Your task to perform on an android device: open app "Google Translate" (install if not already installed) Image 0: 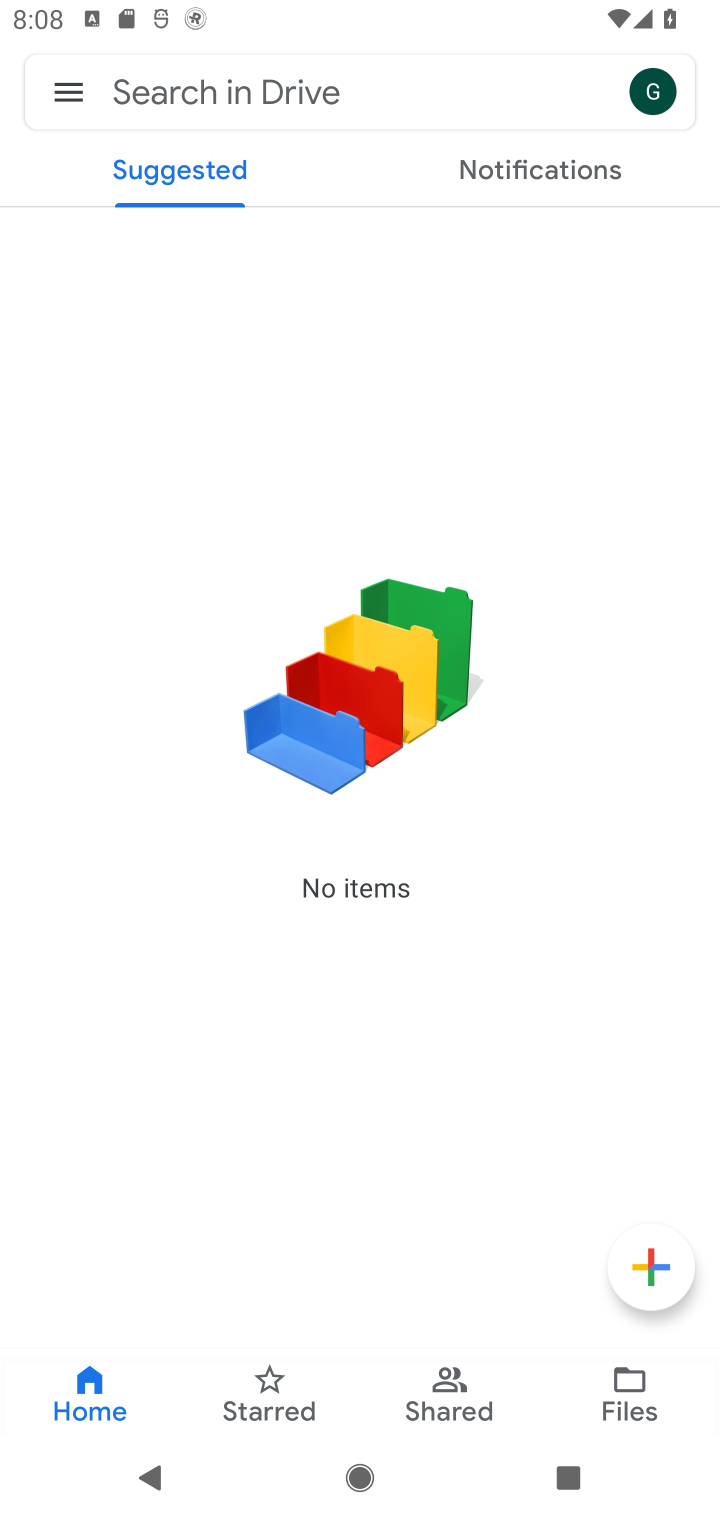
Step 0: press home button
Your task to perform on an android device: open app "Google Translate" (install if not already installed) Image 1: 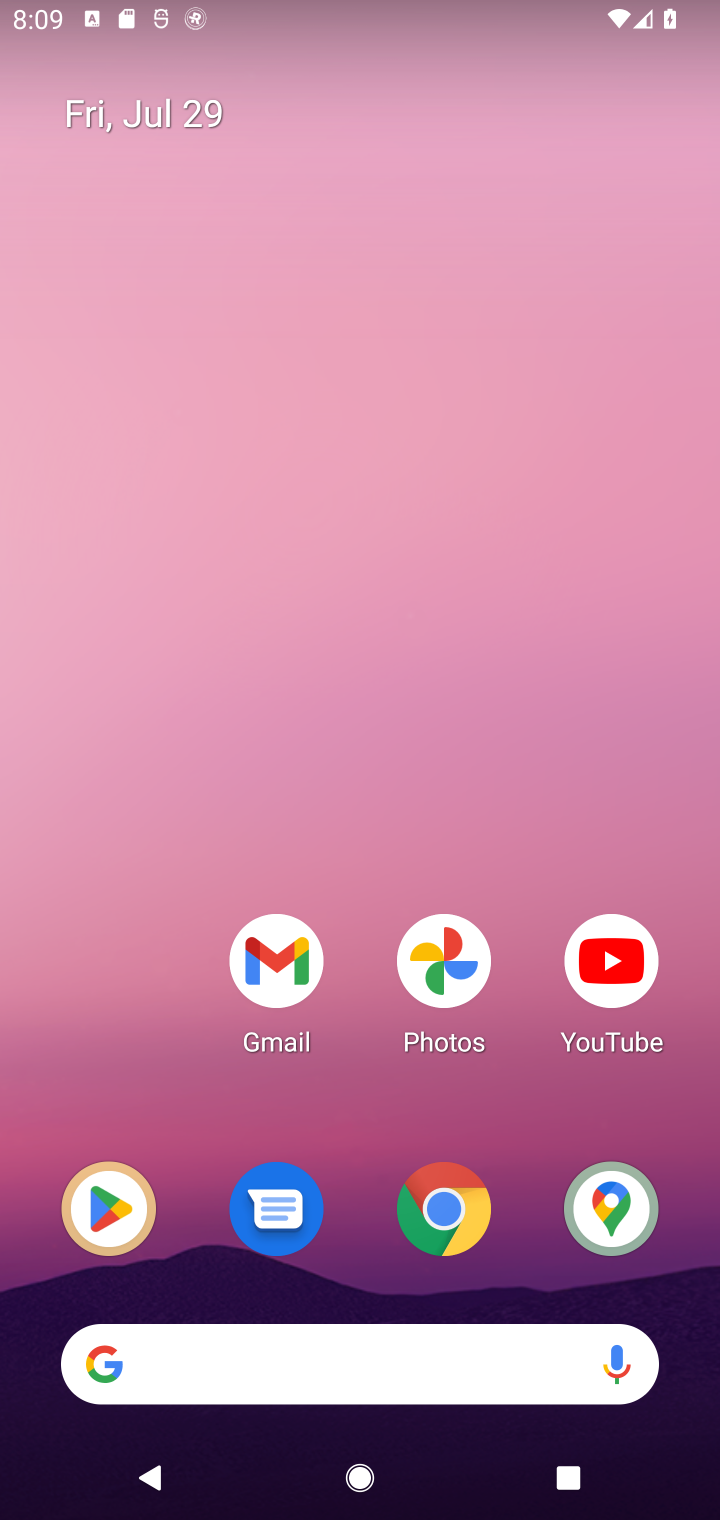
Step 1: click (117, 1218)
Your task to perform on an android device: open app "Google Translate" (install if not already installed) Image 2: 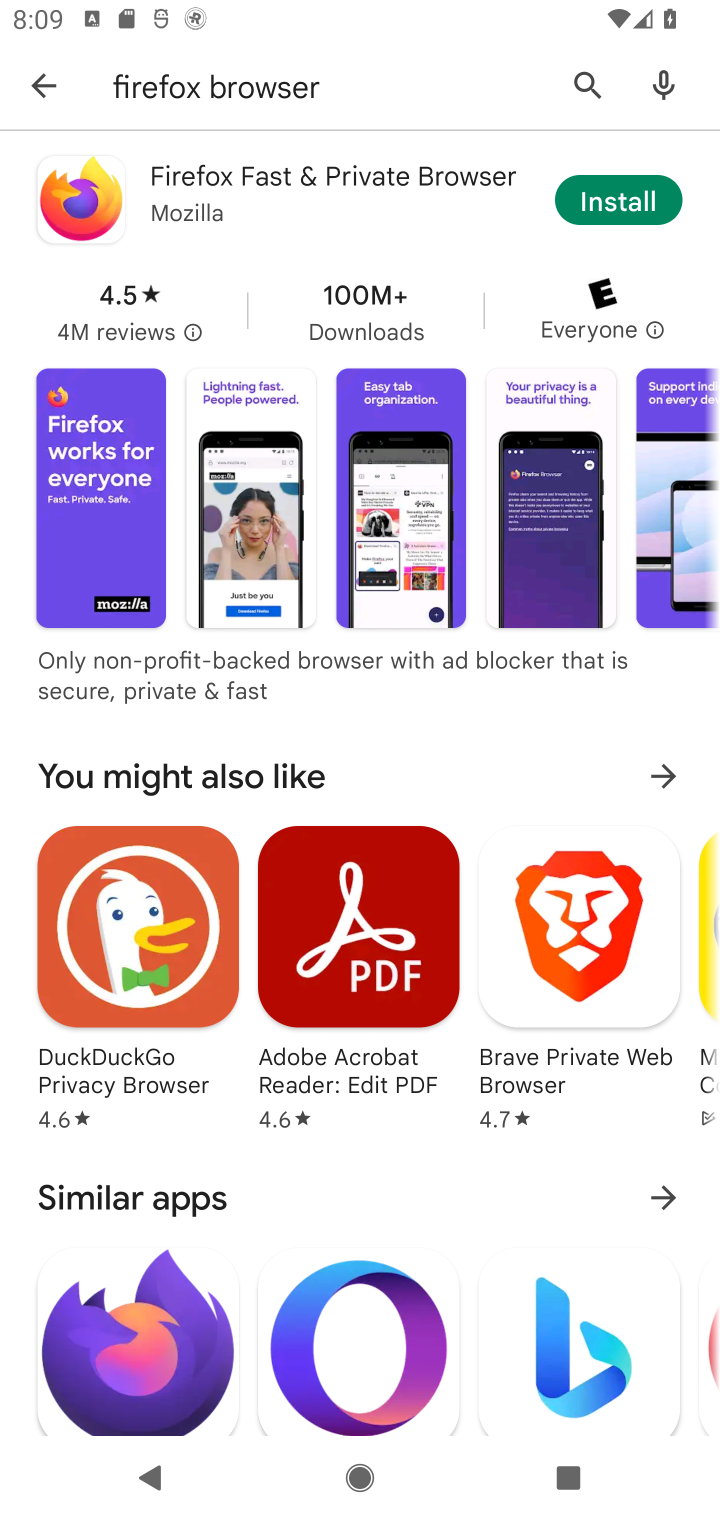
Step 2: click (574, 82)
Your task to perform on an android device: open app "Google Translate" (install if not already installed) Image 3: 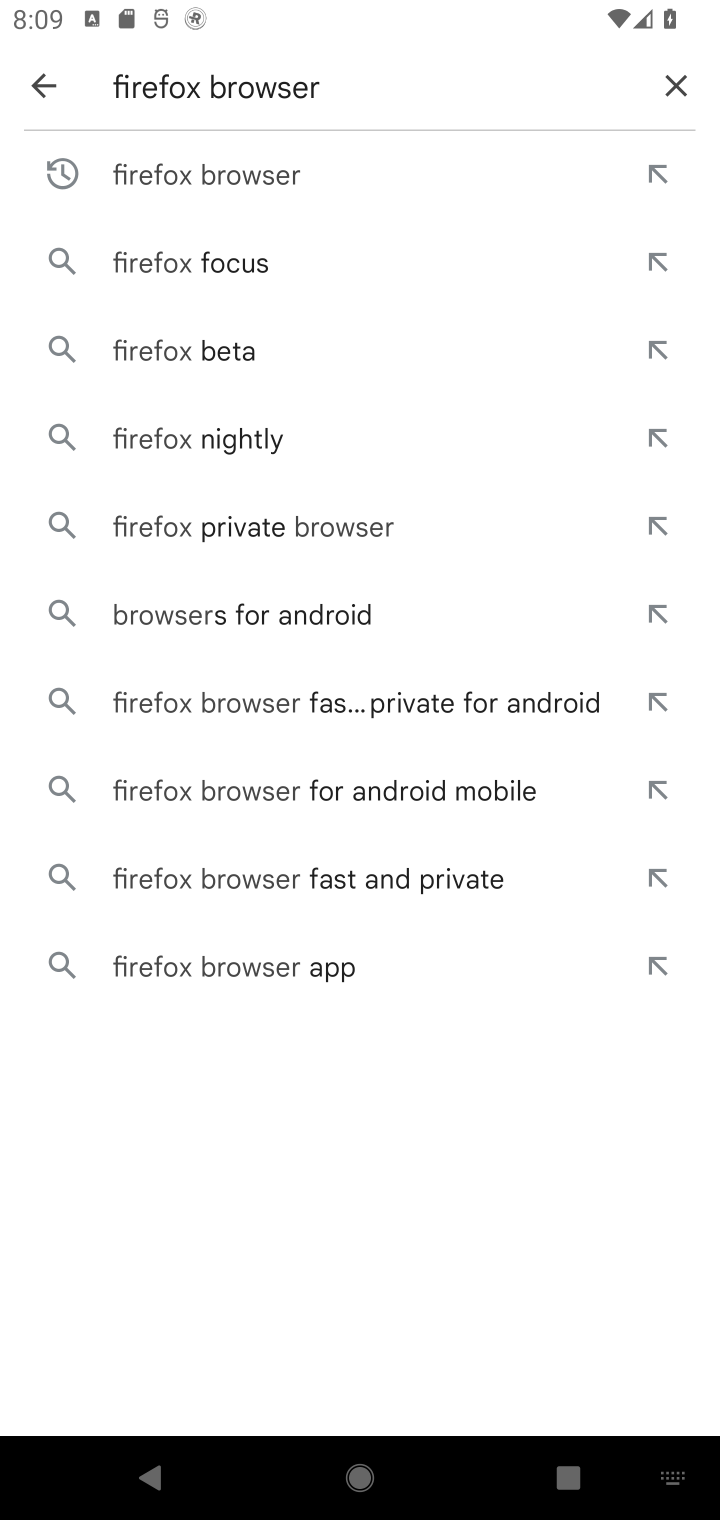
Step 3: click (672, 84)
Your task to perform on an android device: open app "Google Translate" (install if not already installed) Image 4: 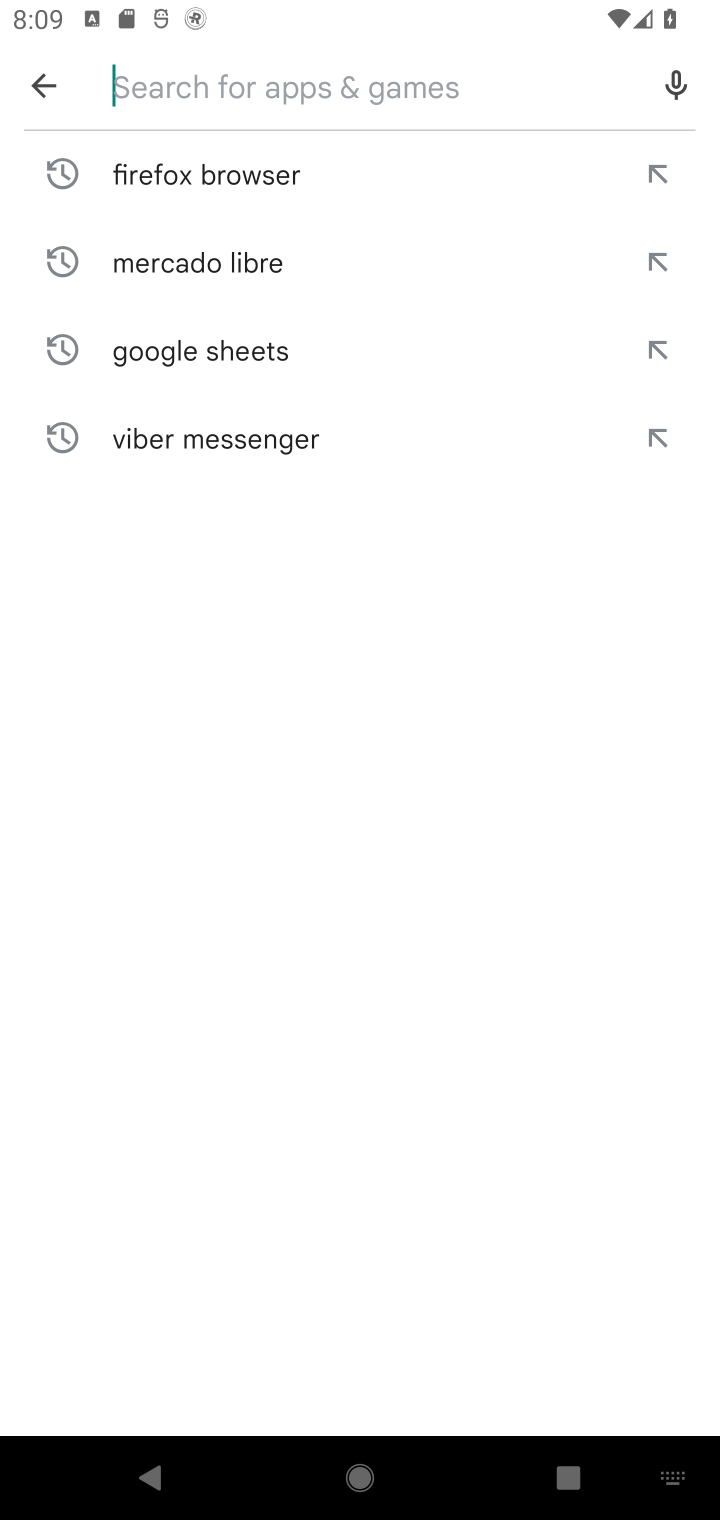
Step 4: type "Google Translate"
Your task to perform on an android device: open app "Google Translate" (install if not already installed) Image 5: 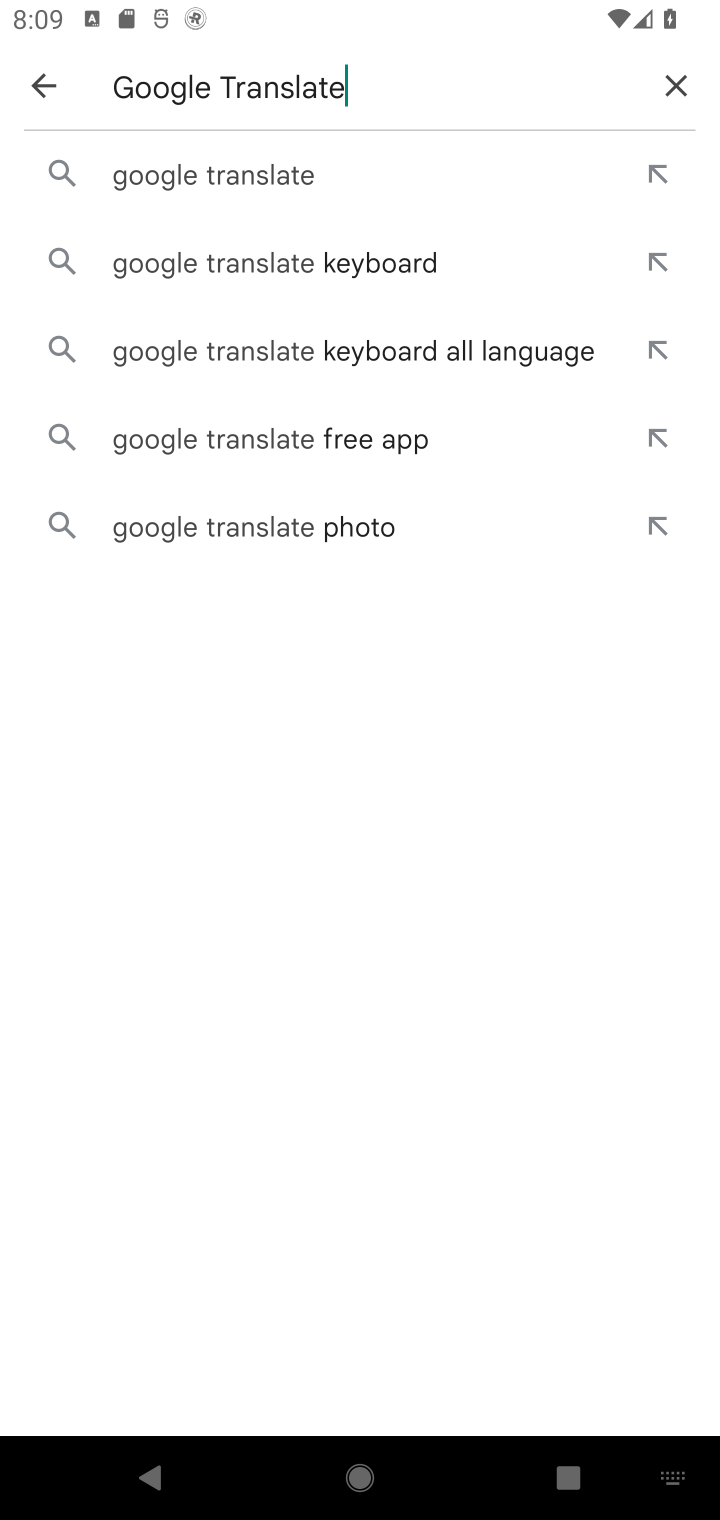
Step 5: click (195, 190)
Your task to perform on an android device: open app "Google Translate" (install if not already installed) Image 6: 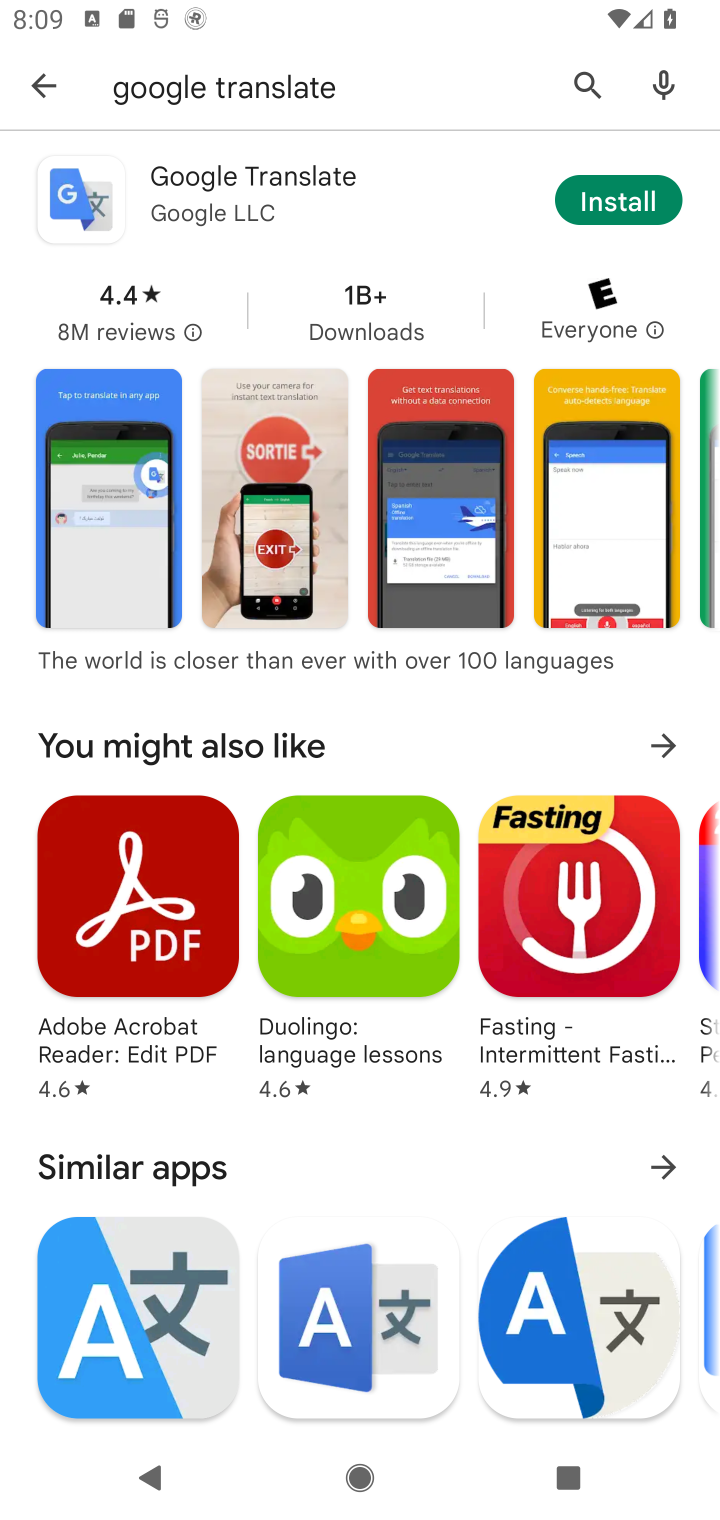
Step 6: click (628, 211)
Your task to perform on an android device: open app "Google Translate" (install if not already installed) Image 7: 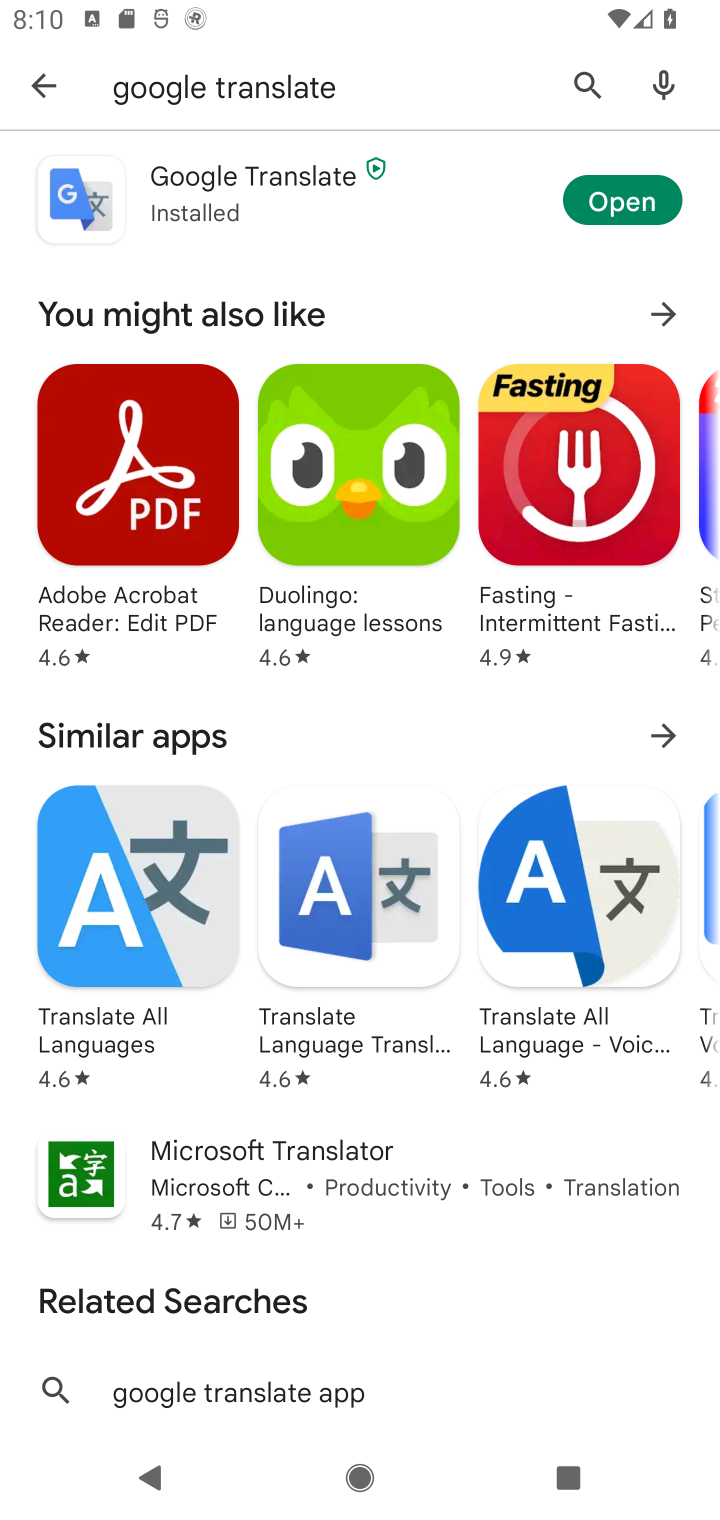
Step 7: click (628, 211)
Your task to perform on an android device: open app "Google Translate" (install if not already installed) Image 8: 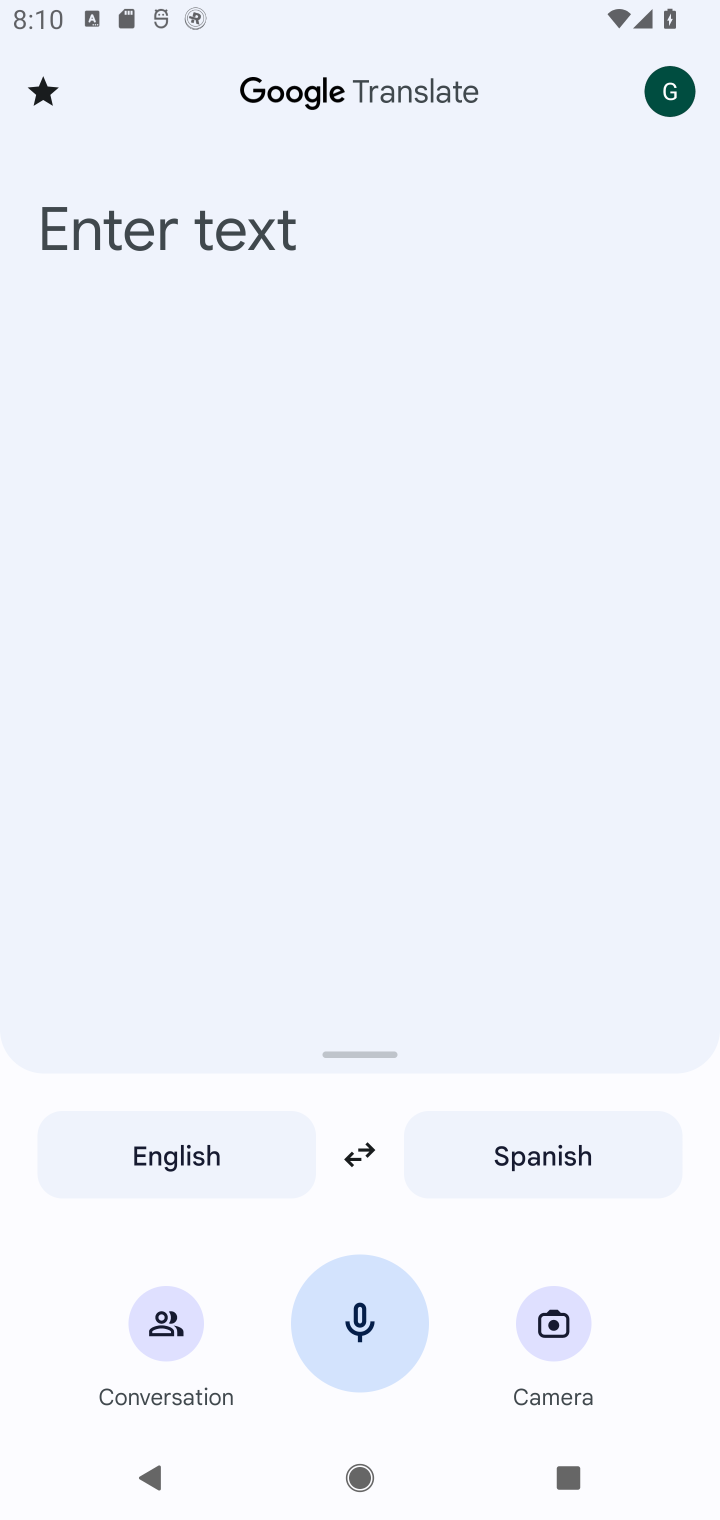
Step 8: task complete